Your task to perform on an android device: Open my contact list Image 0: 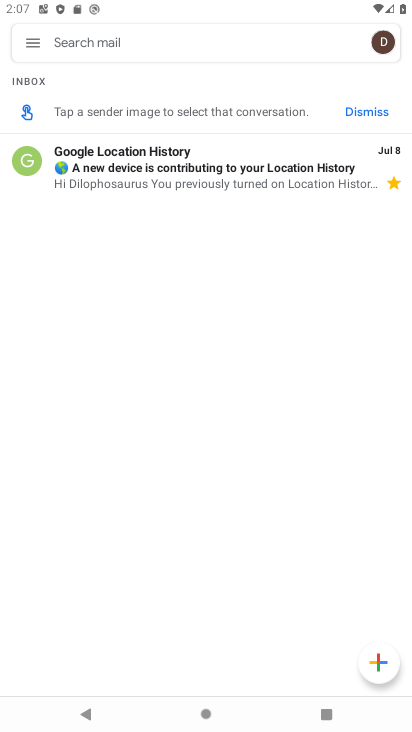
Step 0: press home button
Your task to perform on an android device: Open my contact list Image 1: 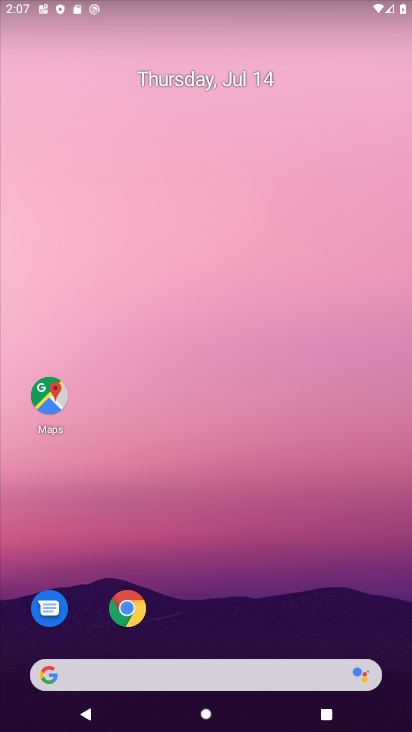
Step 1: drag from (35, 498) to (192, 126)
Your task to perform on an android device: Open my contact list Image 2: 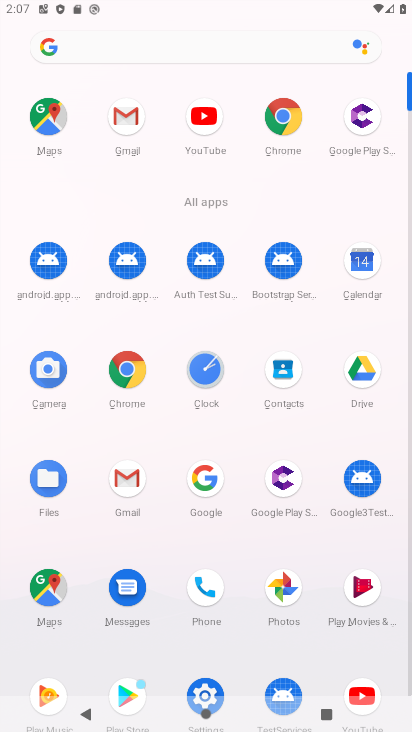
Step 2: click (198, 592)
Your task to perform on an android device: Open my contact list Image 3: 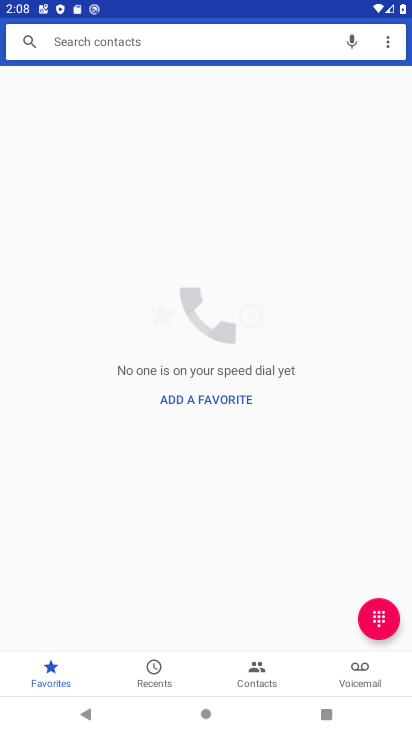
Step 3: click (261, 672)
Your task to perform on an android device: Open my contact list Image 4: 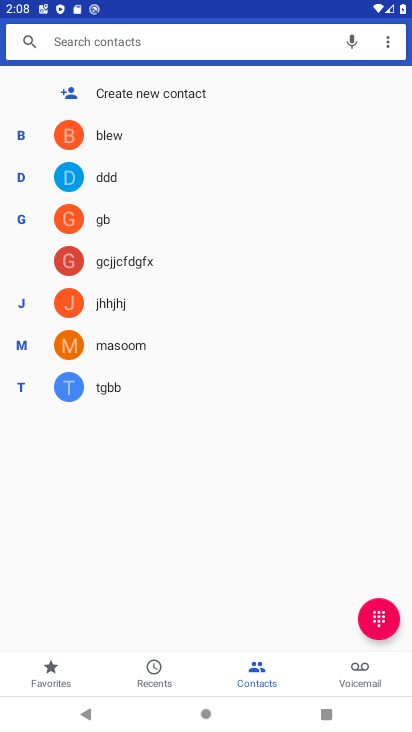
Step 4: task complete